Your task to perform on an android device: Open Chrome and go to settings Image 0: 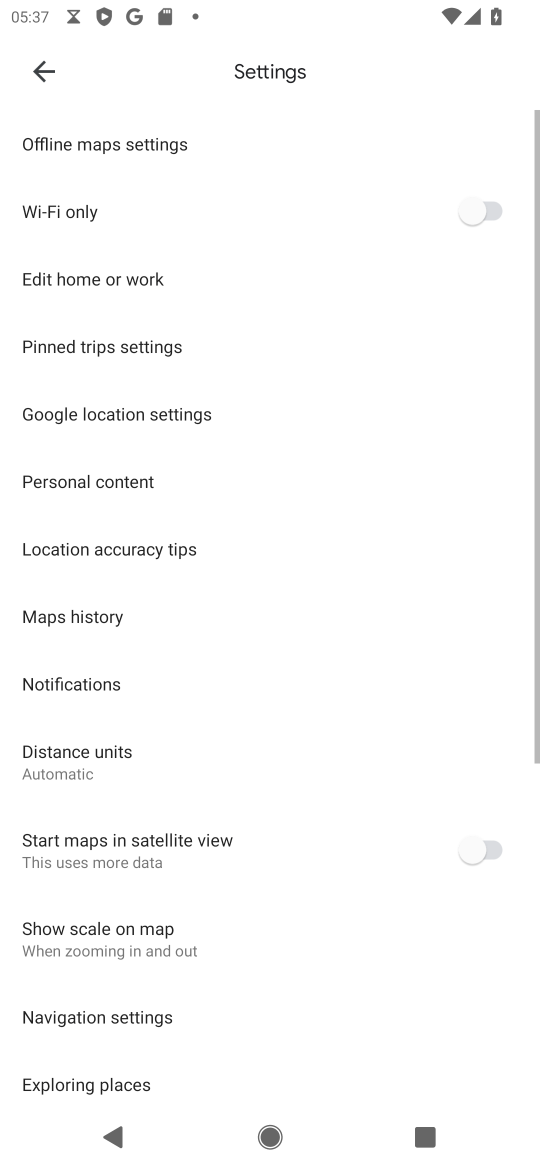
Step 0: press home button
Your task to perform on an android device: Open Chrome and go to settings Image 1: 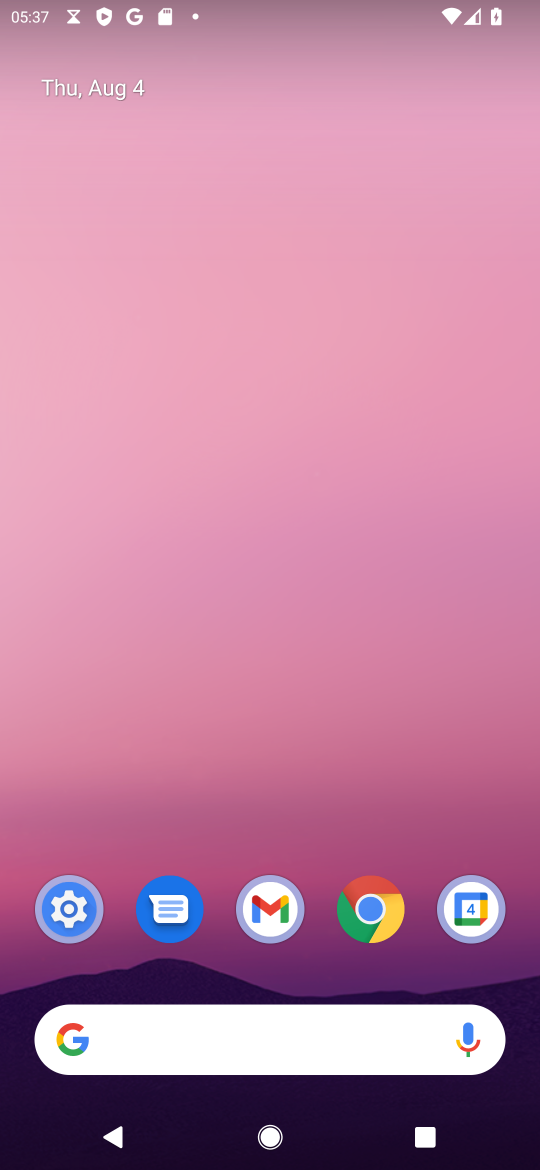
Step 1: click (374, 915)
Your task to perform on an android device: Open Chrome and go to settings Image 2: 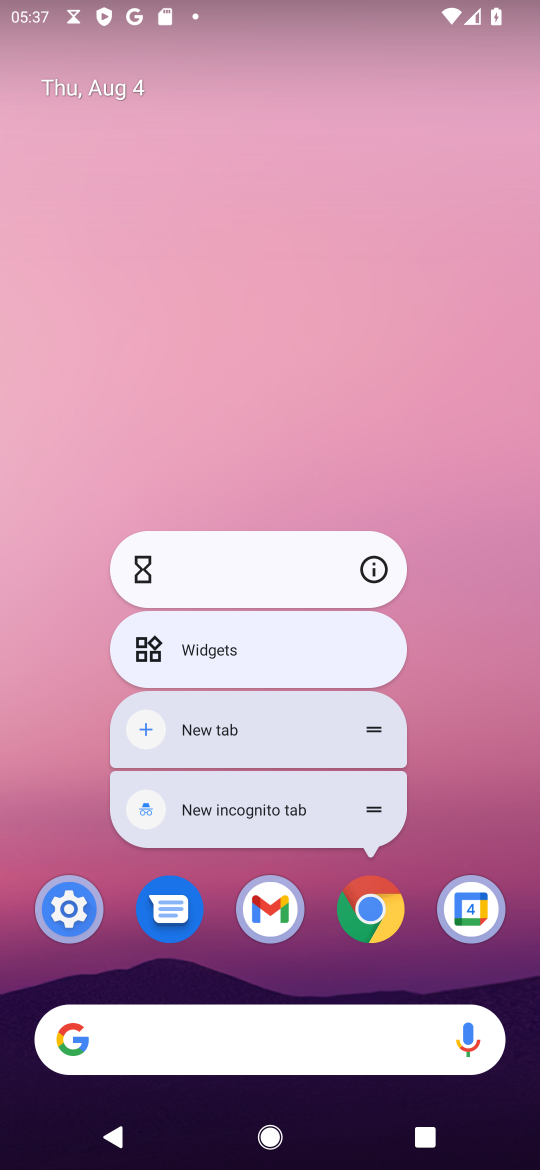
Step 2: click (364, 902)
Your task to perform on an android device: Open Chrome and go to settings Image 3: 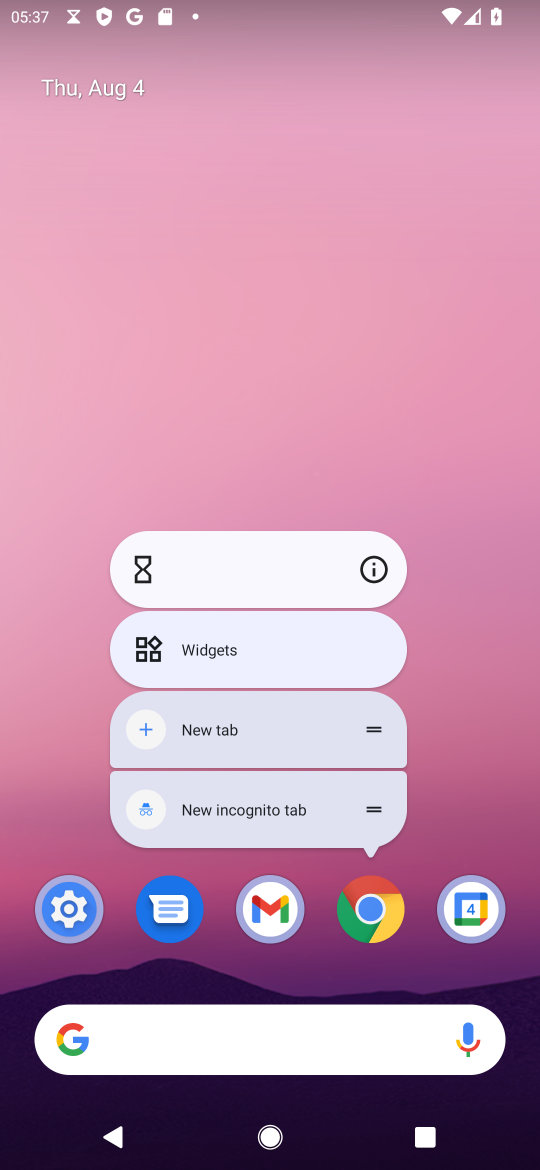
Step 3: click (364, 903)
Your task to perform on an android device: Open Chrome and go to settings Image 4: 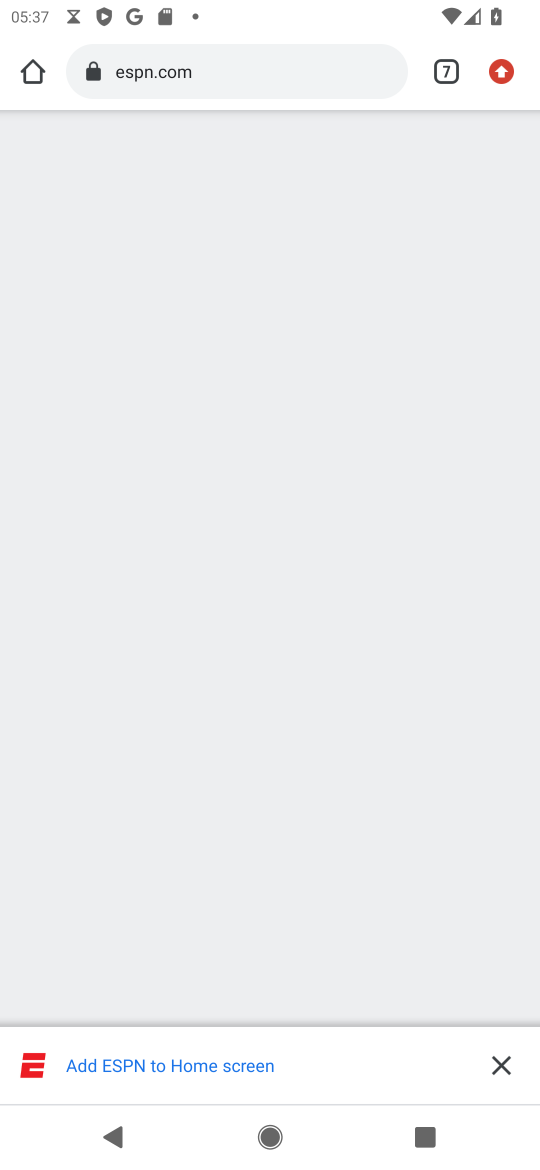
Step 4: task complete